Your task to perform on an android device: turn off data saver in the chrome app Image 0: 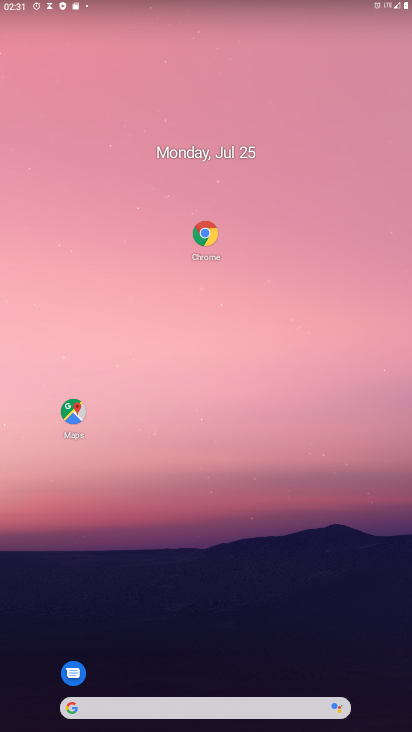
Step 0: drag from (156, 697) to (213, 173)
Your task to perform on an android device: turn off data saver in the chrome app Image 1: 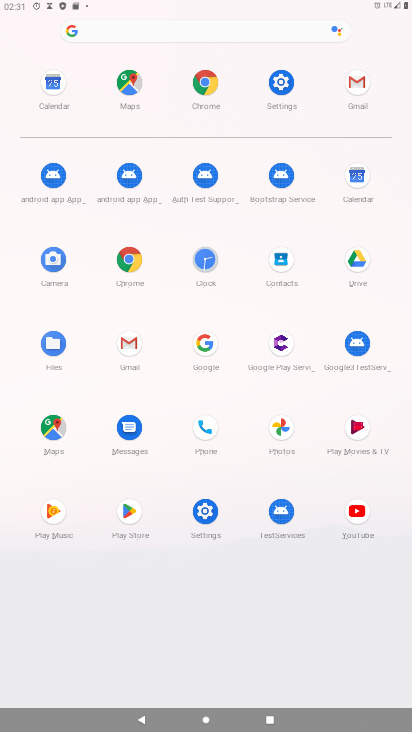
Step 1: click (128, 264)
Your task to perform on an android device: turn off data saver in the chrome app Image 2: 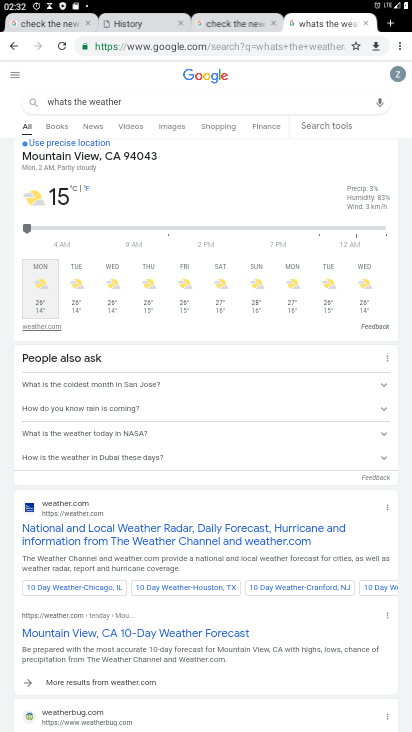
Step 2: drag from (402, 46) to (312, 285)
Your task to perform on an android device: turn off data saver in the chrome app Image 3: 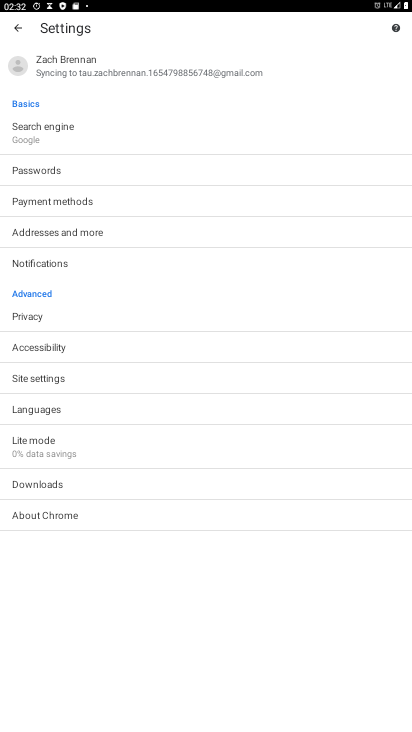
Step 3: click (43, 442)
Your task to perform on an android device: turn off data saver in the chrome app Image 4: 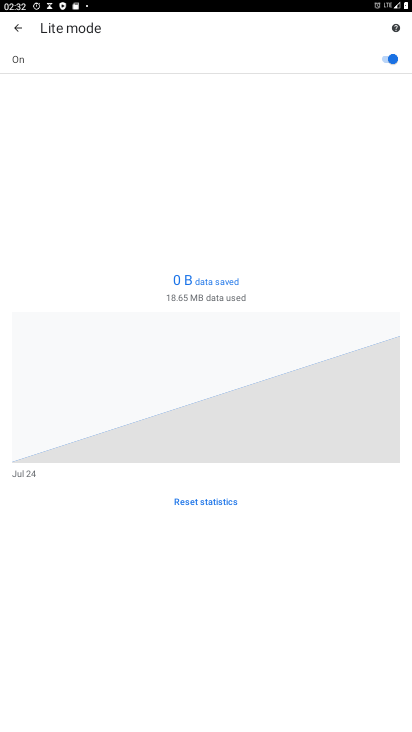
Step 4: click (390, 58)
Your task to perform on an android device: turn off data saver in the chrome app Image 5: 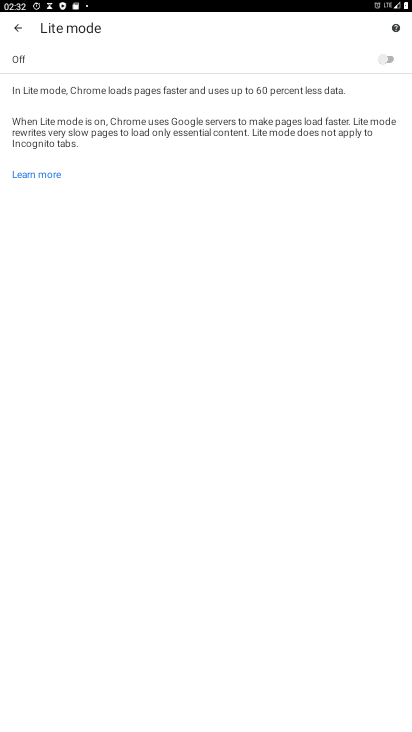
Step 5: task complete